Your task to perform on an android device: Open accessibility settings Image 0: 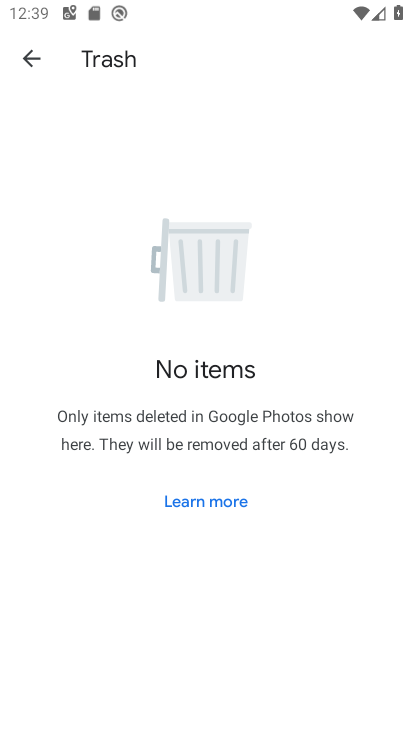
Step 0: press home button
Your task to perform on an android device: Open accessibility settings Image 1: 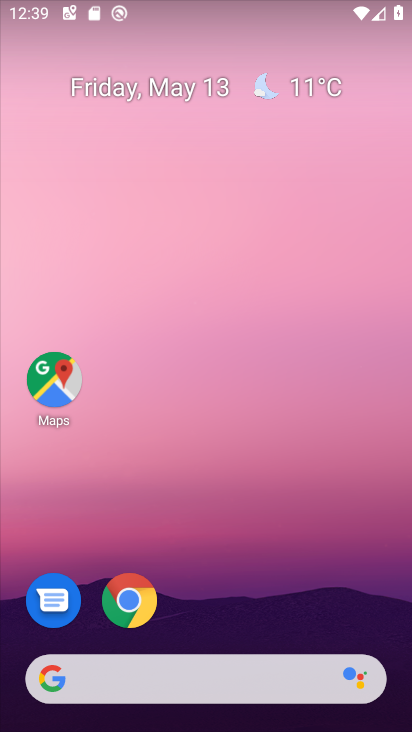
Step 1: drag from (214, 616) to (297, 98)
Your task to perform on an android device: Open accessibility settings Image 2: 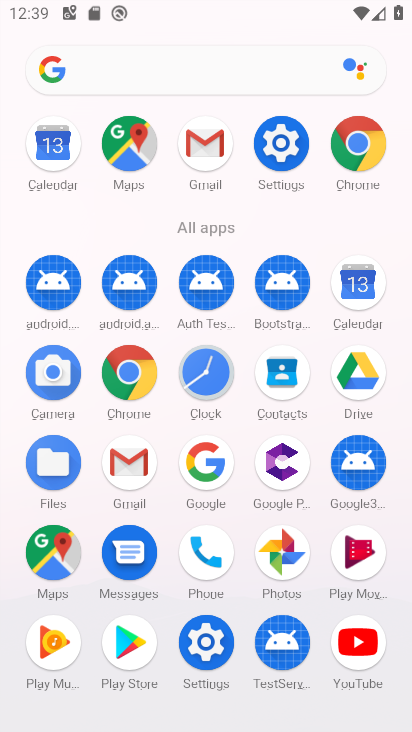
Step 2: click (284, 161)
Your task to perform on an android device: Open accessibility settings Image 3: 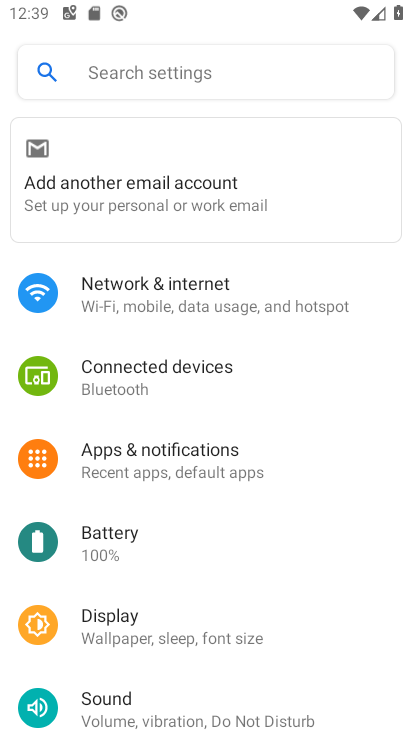
Step 3: drag from (213, 660) to (243, 51)
Your task to perform on an android device: Open accessibility settings Image 4: 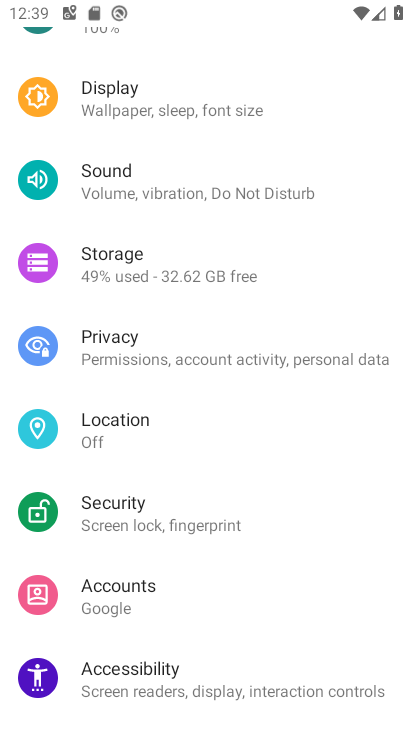
Step 4: click (117, 683)
Your task to perform on an android device: Open accessibility settings Image 5: 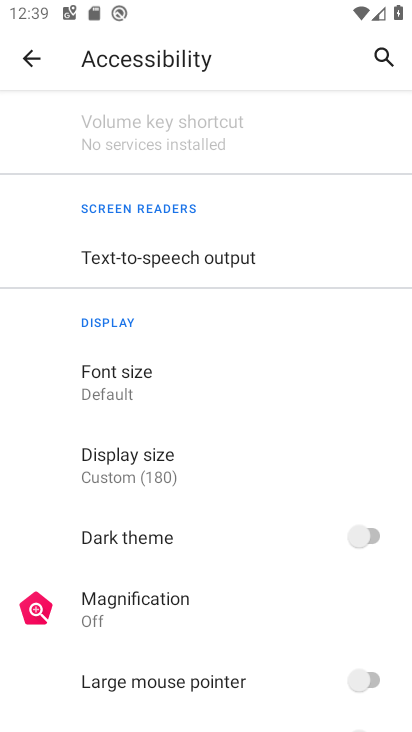
Step 5: task complete